Your task to perform on an android device: What's the weather? Image 0: 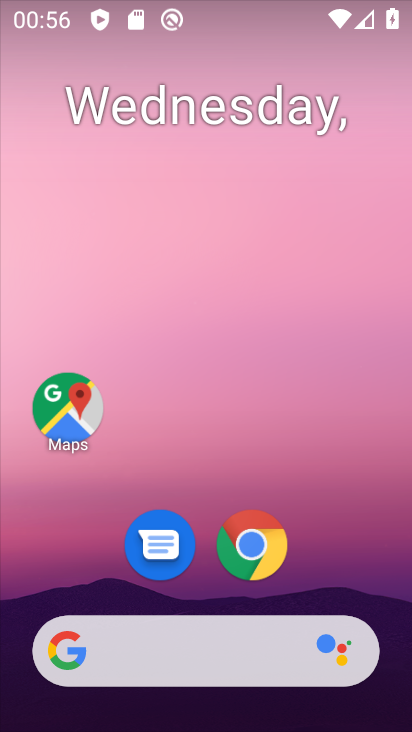
Step 0: drag from (338, 546) to (285, 79)
Your task to perform on an android device: What's the weather? Image 1: 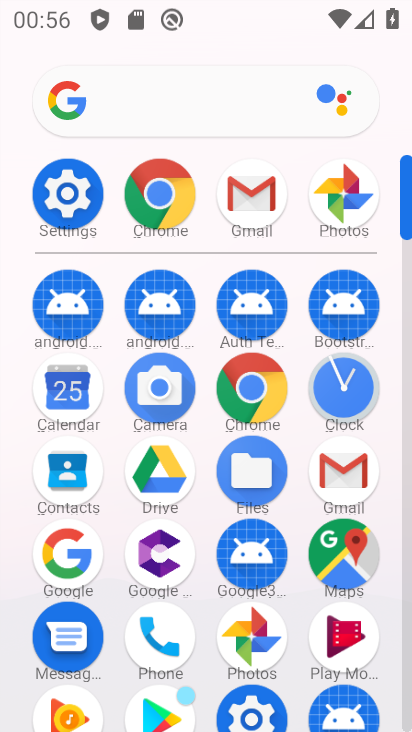
Step 1: click (251, 379)
Your task to perform on an android device: What's the weather? Image 2: 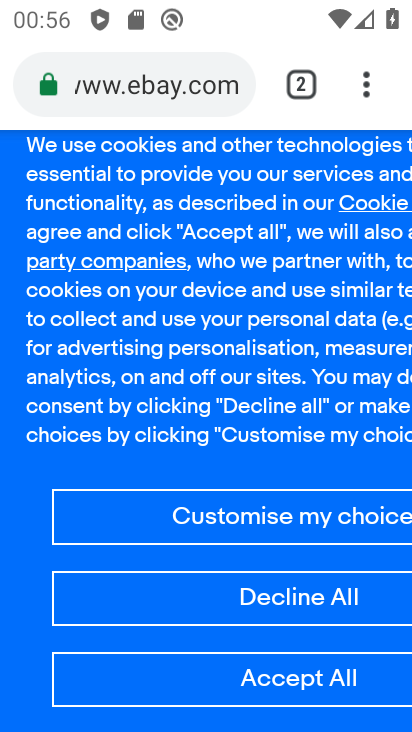
Step 2: click (216, 83)
Your task to perform on an android device: What's the weather? Image 3: 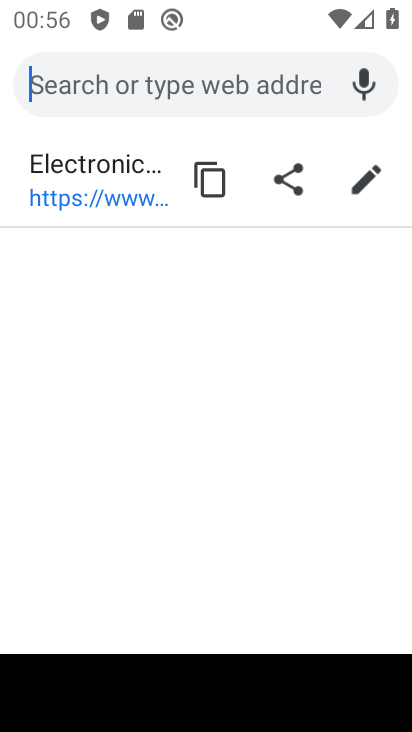
Step 3: type "weather"
Your task to perform on an android device: What's the weather? Image 4: 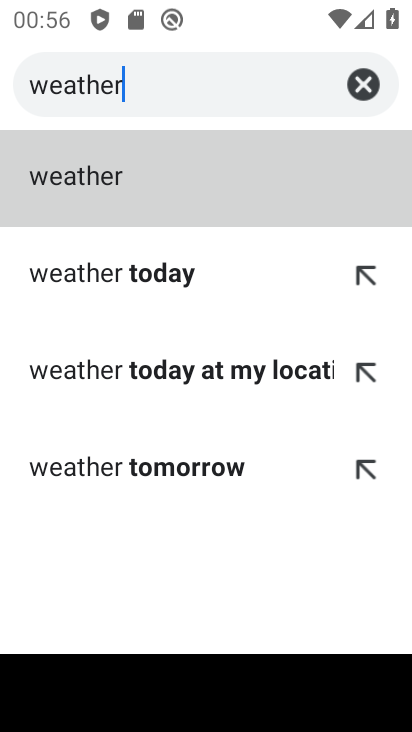
Step 4: click (80, 170)
Your task to perform on an android device: What's the weather? Image 5: 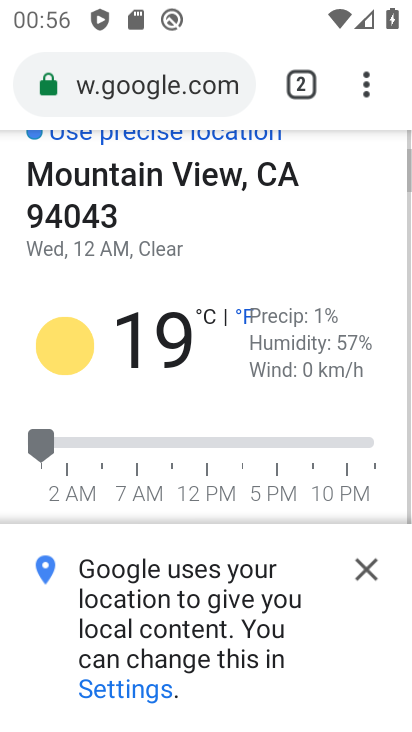
Step 5: task complete